Your task to perform on an android device: check out phone information Image 0: 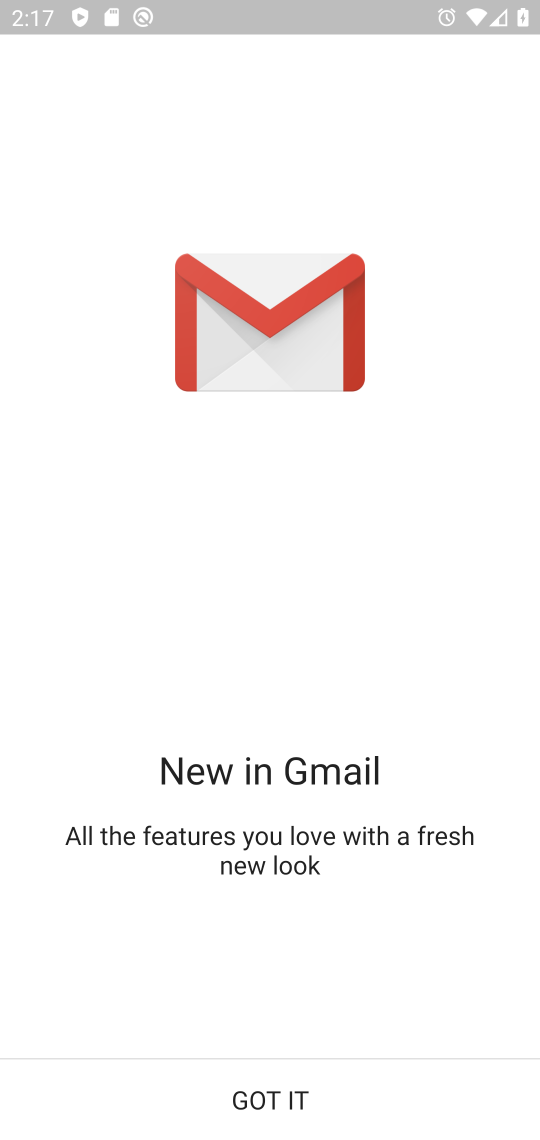
Step 0: press home button
Your task to perform on an android device: check out phone information Image 1: 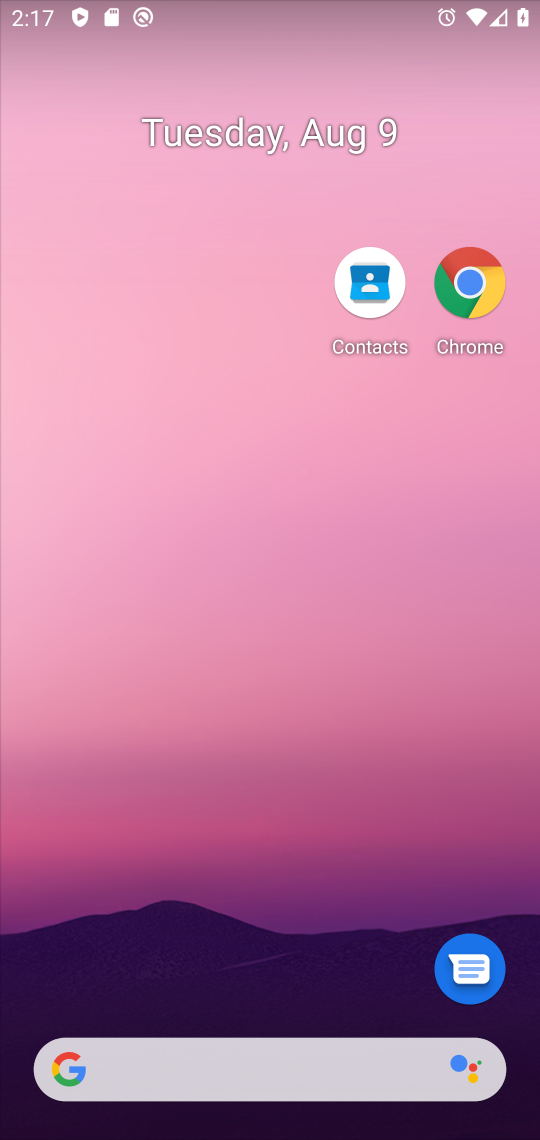
Step 1: drag from (304, 949) to (387, 290)
Your task to perform on an android device: check out phone information Image 2: 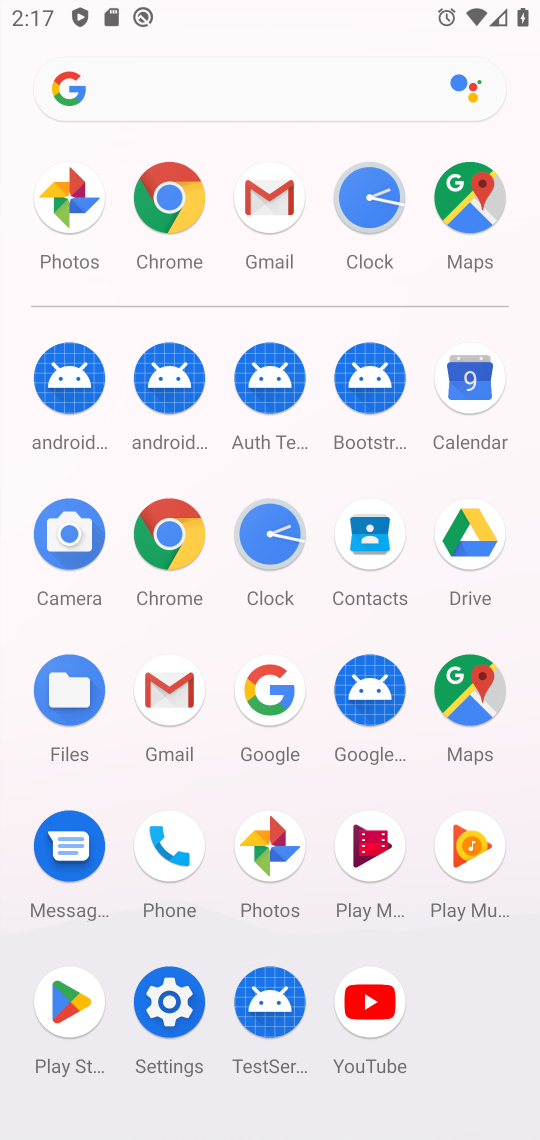
Step 2: click (176, 1014)
Your task to perform on an android device: check out phone information Image 3: 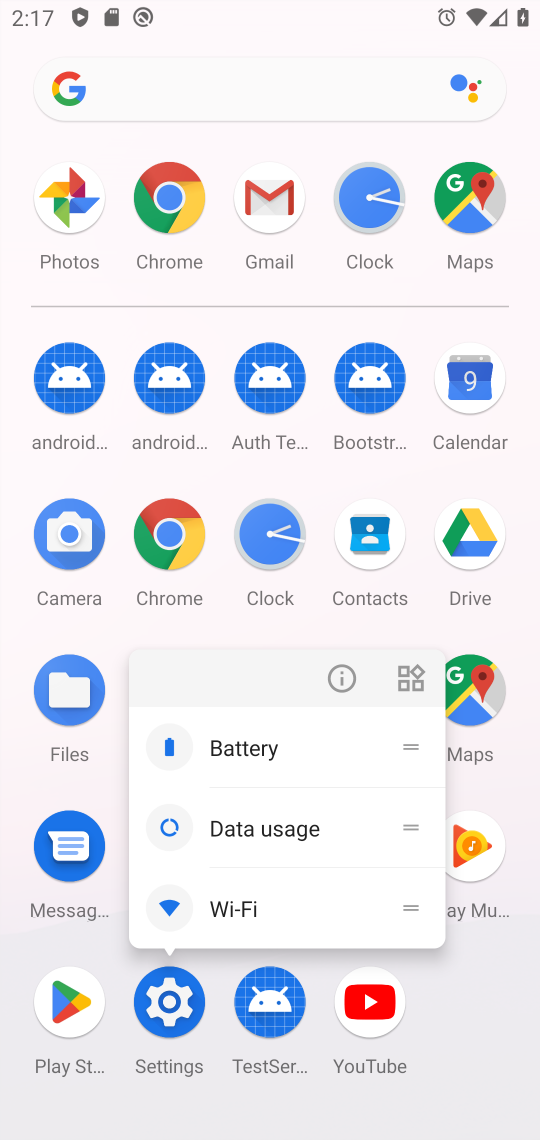
Step 3: click (349, 671)
Your task to perform on an android device: check out phone information Image 4: 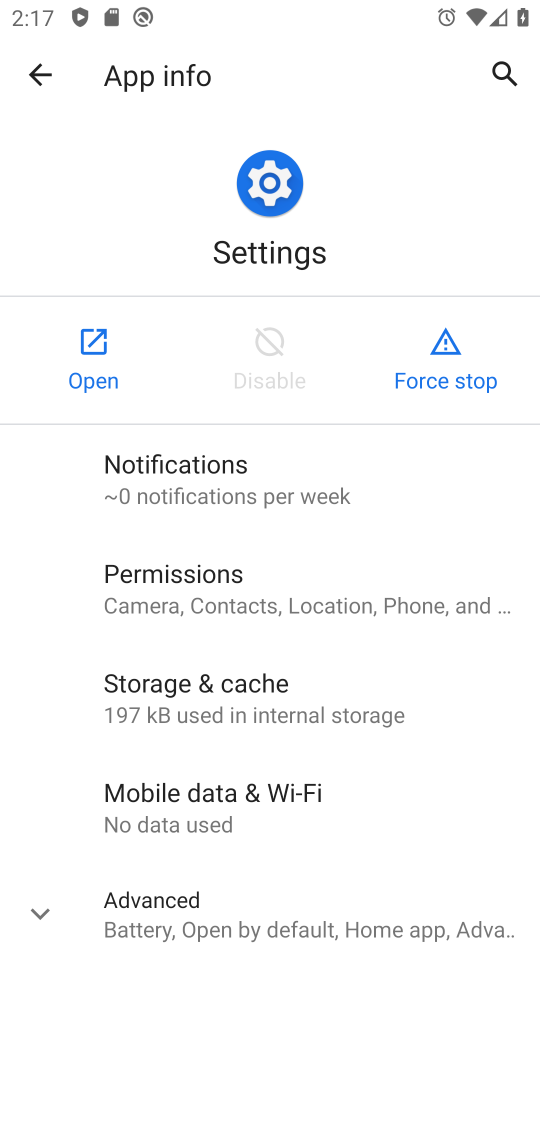
Step 4: click (116, 379)
Your task to perform on an android device: check out phone information Image 5: 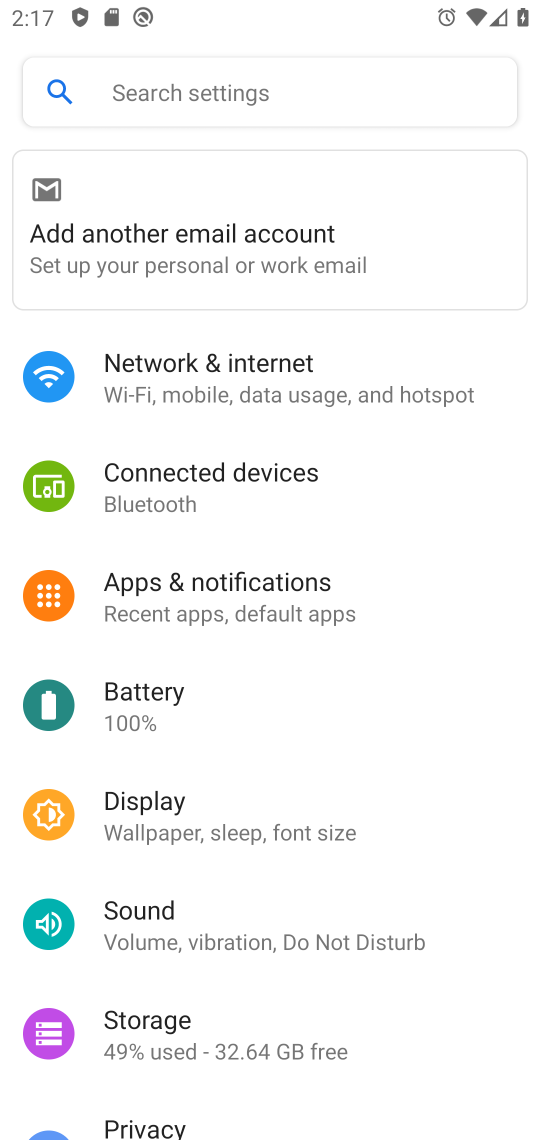
Step 5: drag from (312, 965) to (376, 204)
Your task to perform on an android device: check out phone information Image 6: 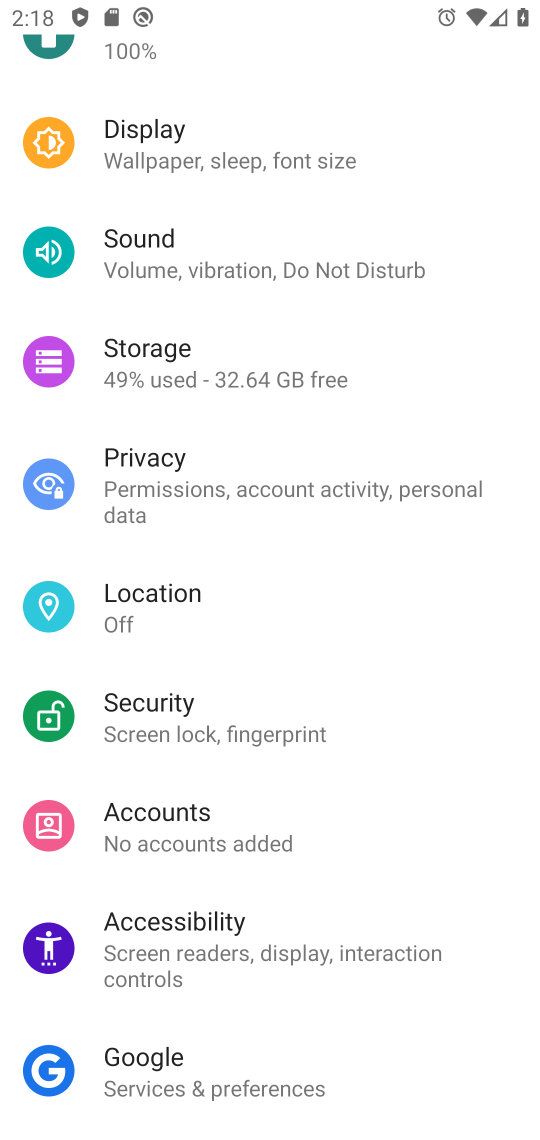
Step 6: drag from (266, 985) to (270, 351)
Your task to perform on an android device: check out phone information Image 7: 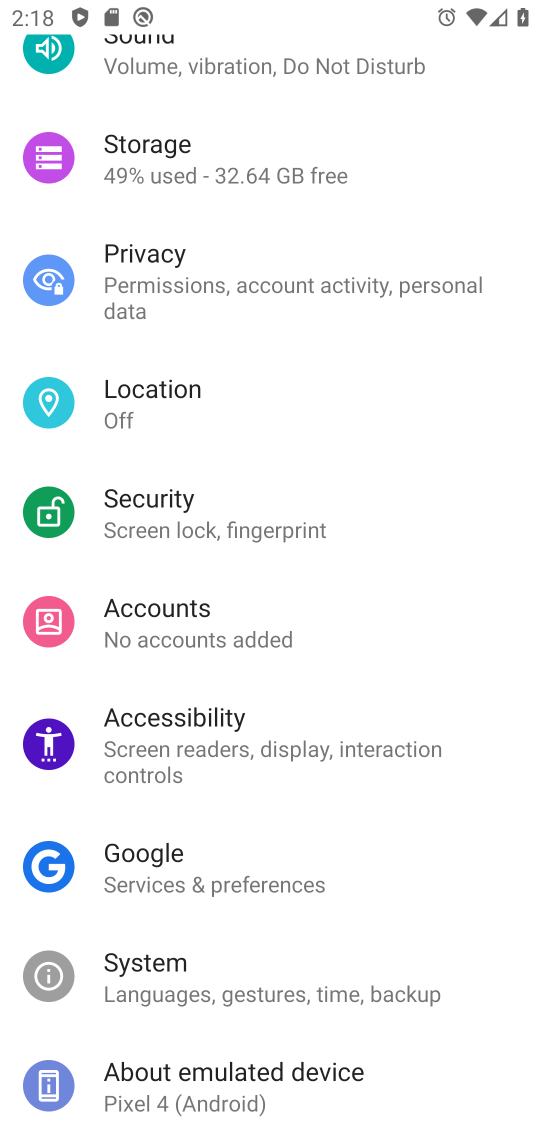
Step 7: click (215, 1067)
Your task to perform on an android device: check out phone information Image 8: 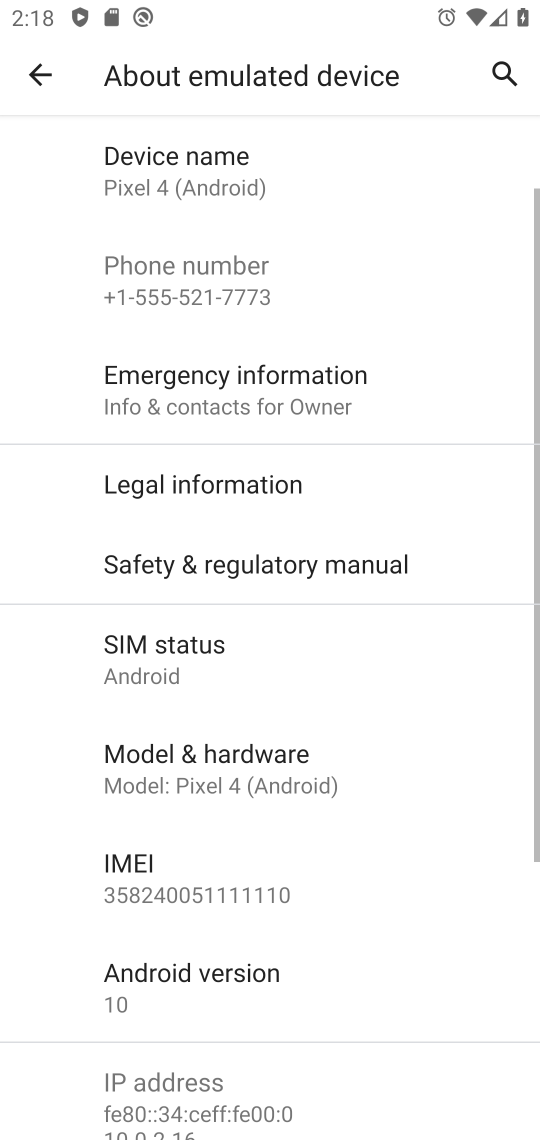
Step 8: task complete